Your task to perform on an android device: turn notification dots off Image 0: 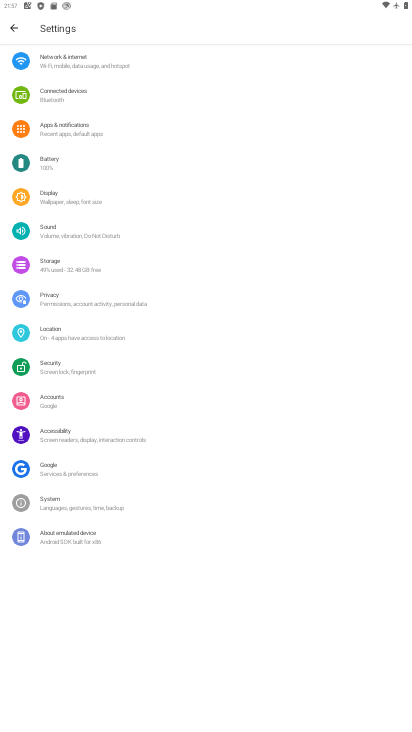
Step 0: click (93, 126)
Your task to perform on an android device: turn notification dots off Image 1: 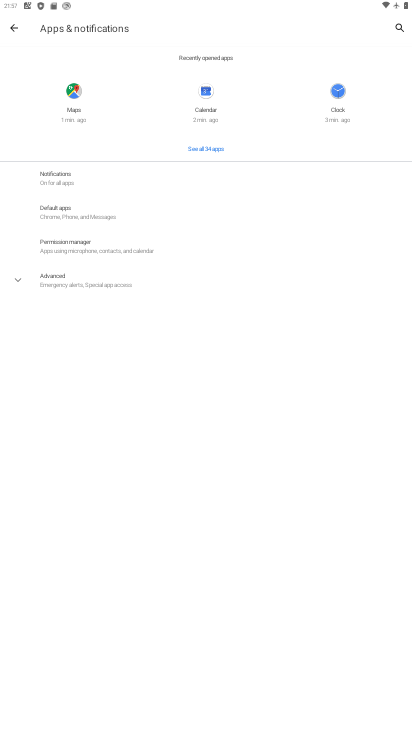
Step 1: click (115, 182)
Your task to perform on an android device: turn notification dots off Image 2: 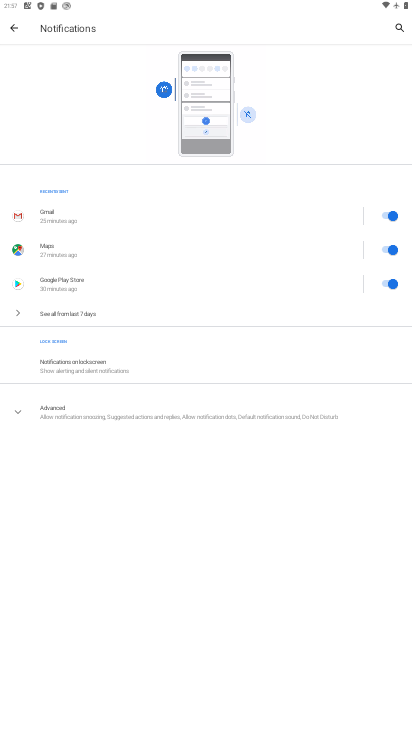
Step 2: click (89, 421)
Your task to perform on an android device: turn notification dots off Image 3: 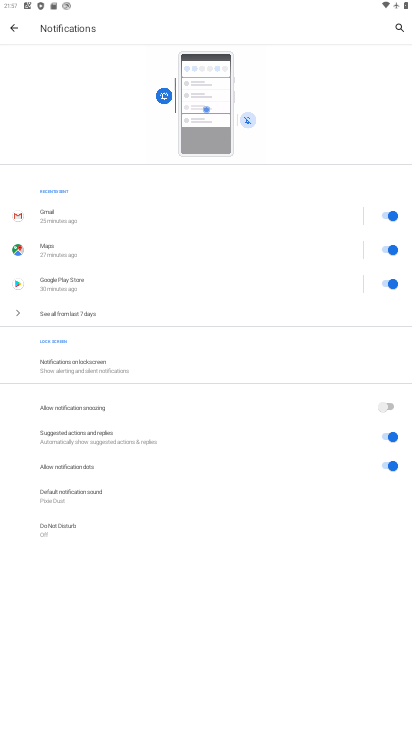
Step 3: click (388, 465)
Your task to perform on an android device: turn notification dots off Image 4: 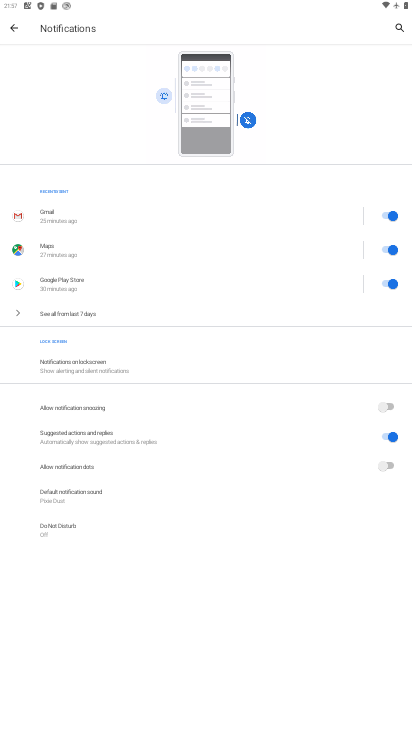
Step 4: task complete